Your task to perform on an android device: Open calendar and show me the fourth week of next month Image 0: 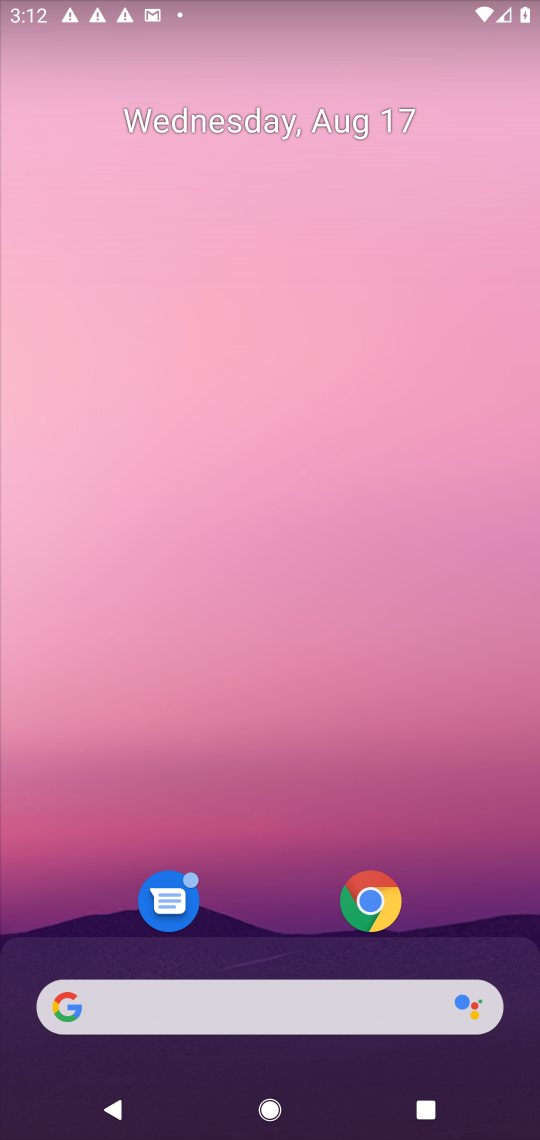
Step 0: drag from (218, 862) to (218, 346)
Your task to perform on an android device: Open calendar and show me the fourth week of next month Image 1: 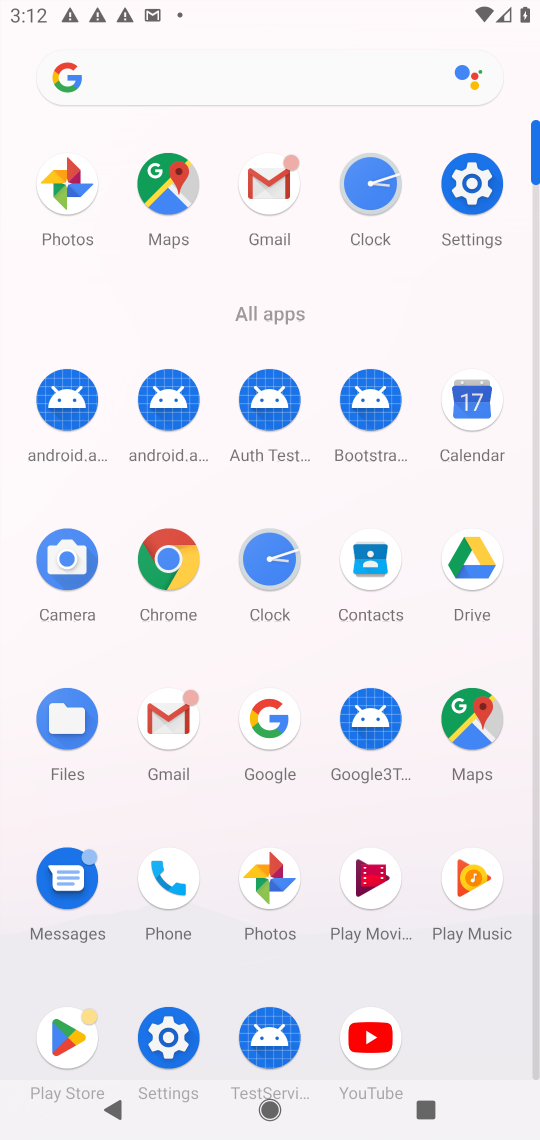
Step 1: click (459, 397)
Your task to perform on an android device: Open calendar and show me the fourth week of next month Image 2: 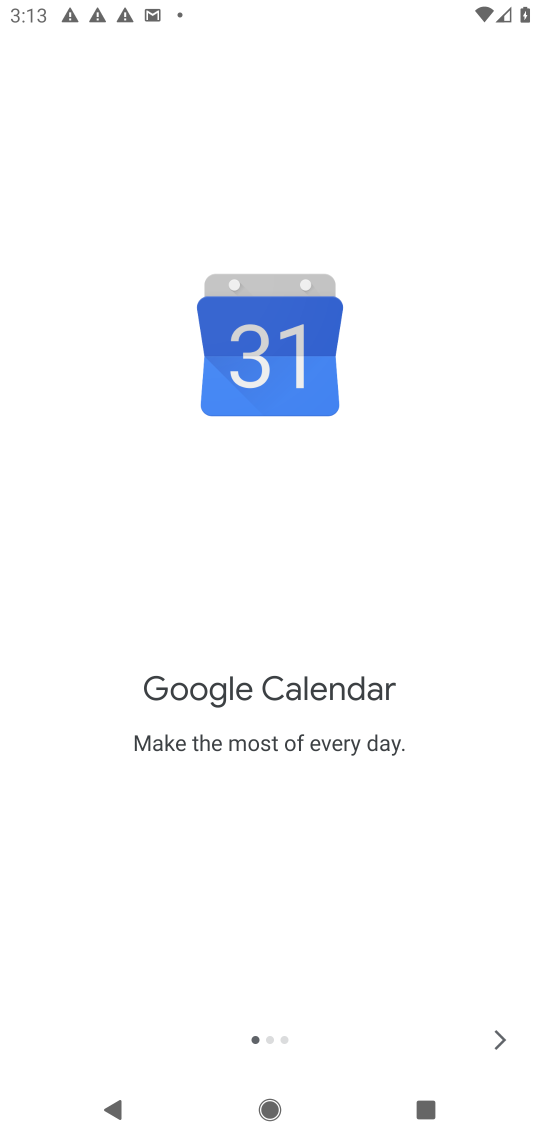
Step 2: click (498, 1035)
Your task to perform on an android device: Open calendar and show me the fourth week of next month Image 3: 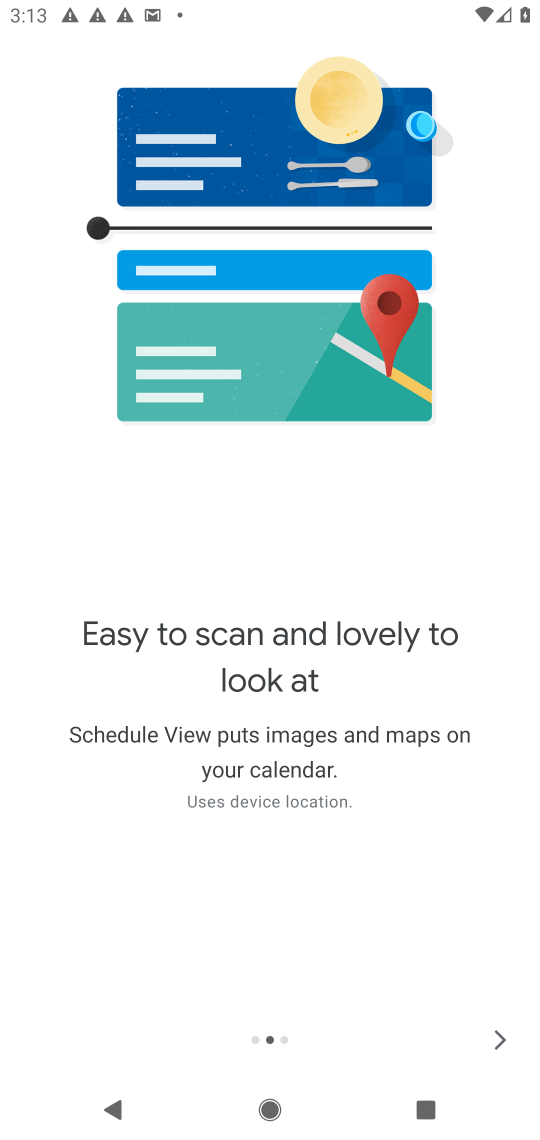
Step 3: click (498, 1035)
Your task to perform on an android device: Open calendar and show me the fourth week of next month Image 4: 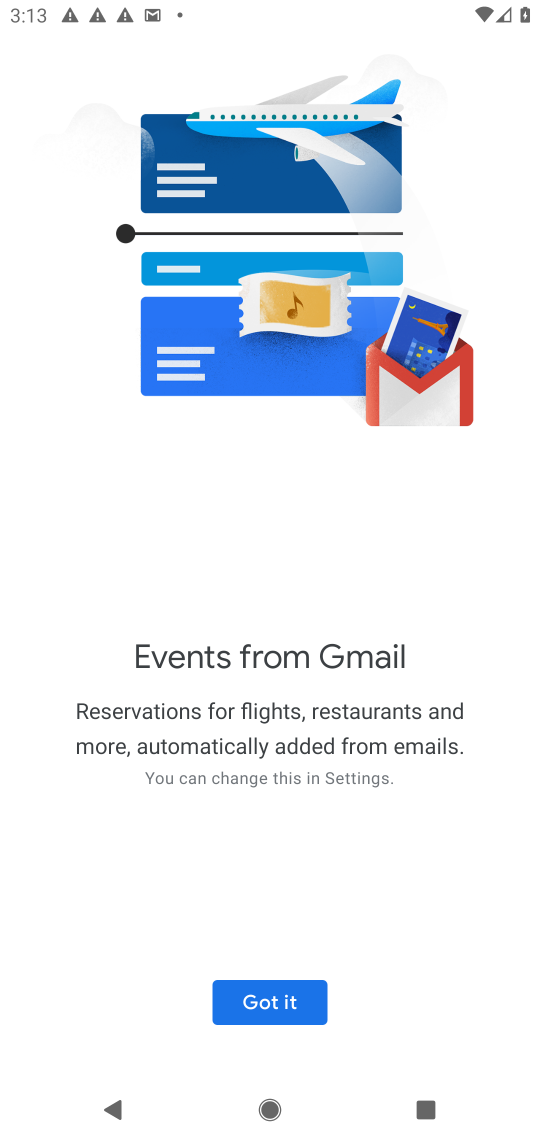
Step 4: click (311, 1004)
Your task to perform on an android device: Open calendar and show me the fourth week of next month Image 5: 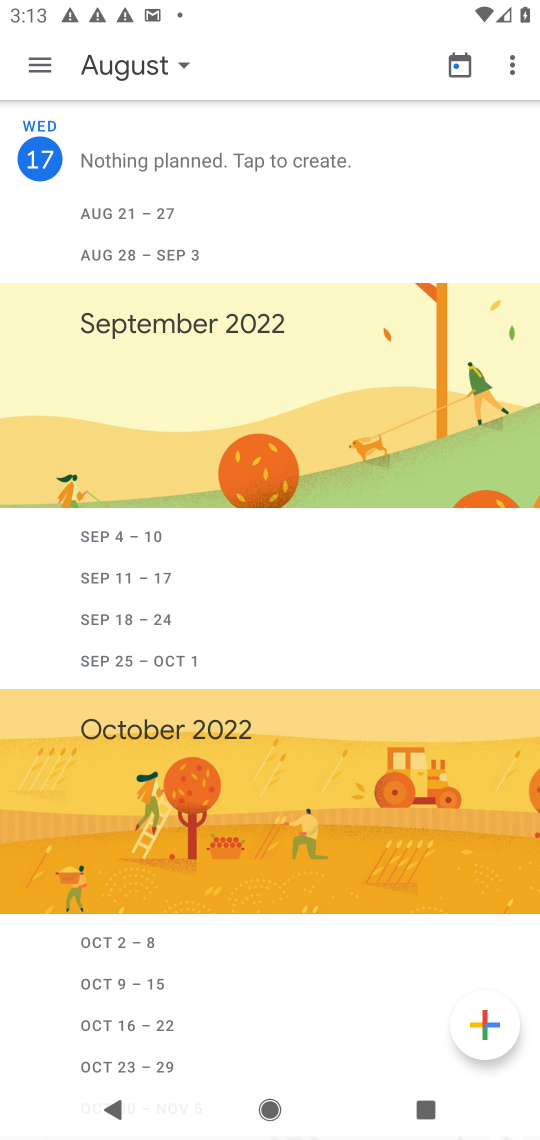
Step 5: click (139, 70)
Your task to perform on an android device: Open calendar and show me the fourth week of next month Image 6: 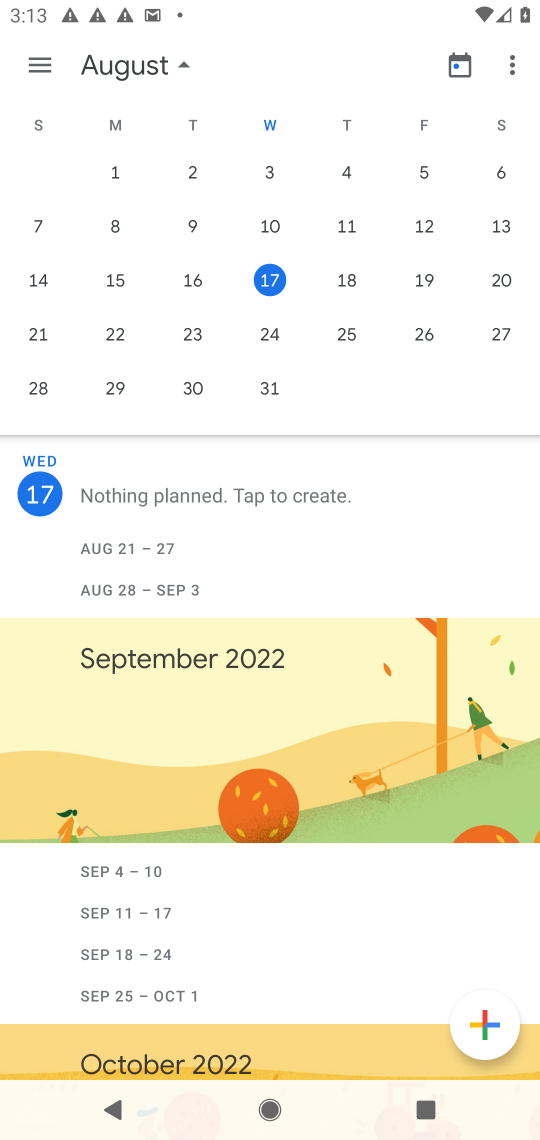
Step 6: drag from (461, 321) to (3, 384)
Your task to perform on an android device: Open calendar and show me the fourth week of next month Image 7: 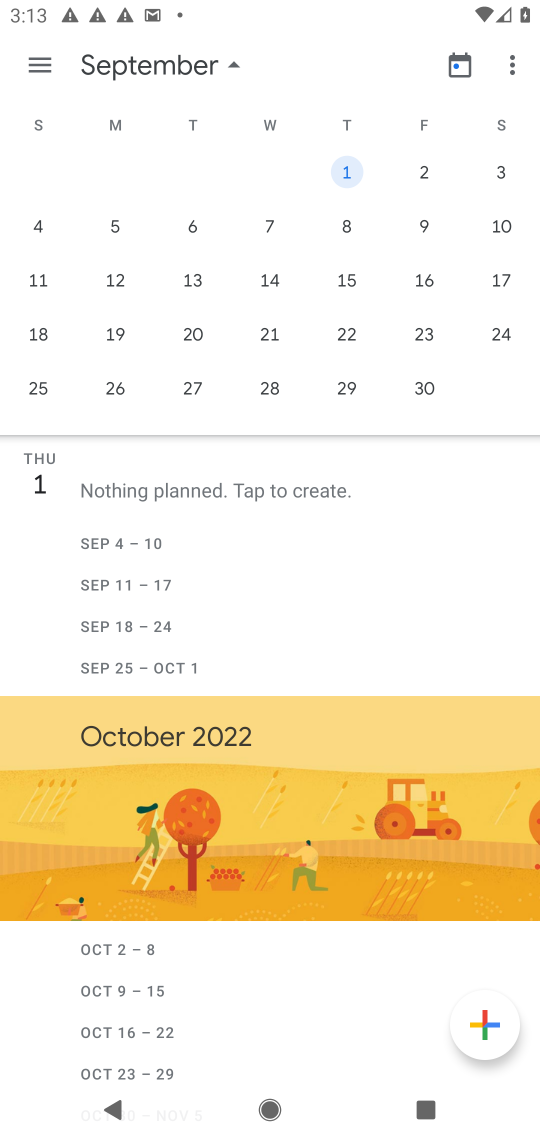
Step 7: click (36, 325)
Your task to perform on an android device: Open calendar and show me the fourth week of next month Image 8: 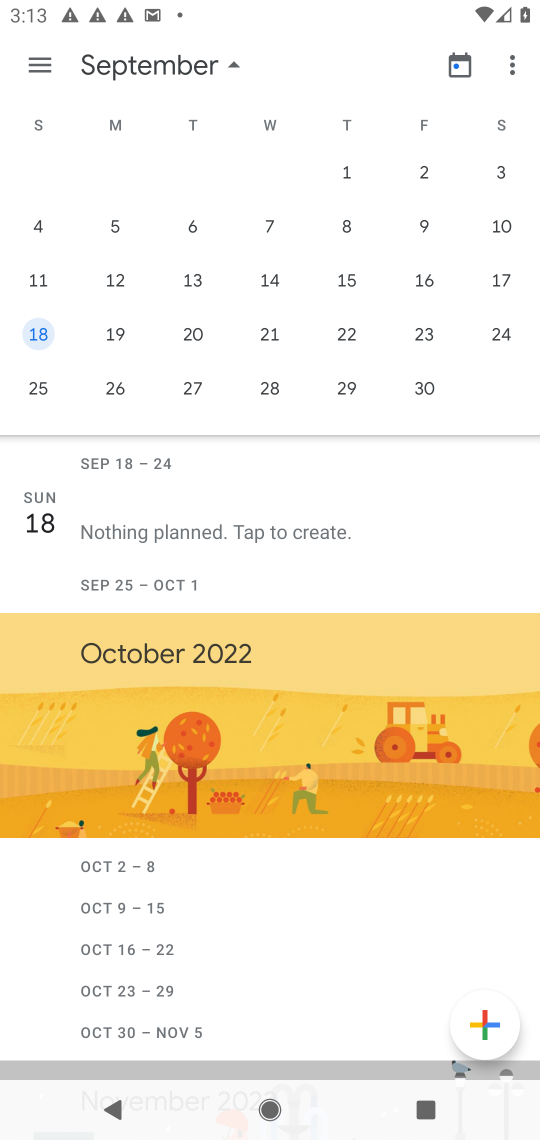
Step 8: task complete